Your task to perform on an android device: check google app version Image 0: 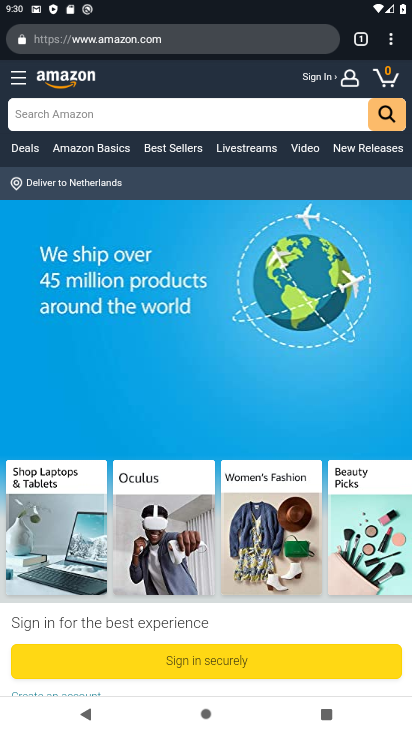
Step 0: press back button
Your task to perform on an android device: check google app version Image 1: 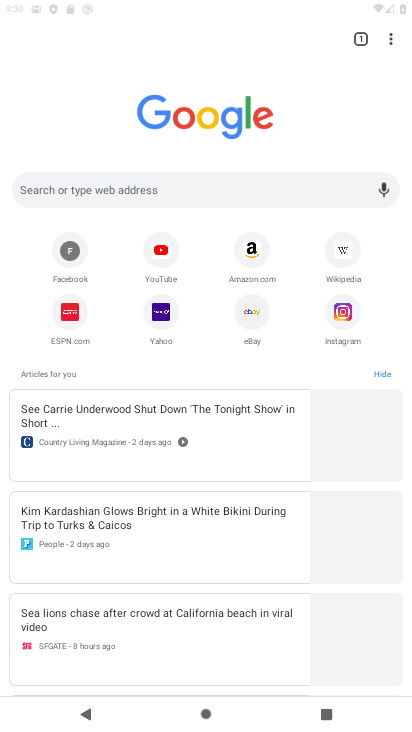
Step 1: press home button
Your task to perform on an android device: check google app version Image 2: 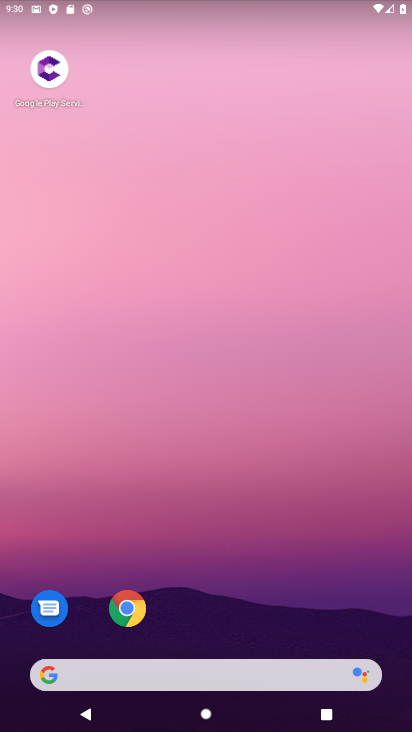
Step 2: press back button
Your task to perform on an android device: check google app version Image 3: 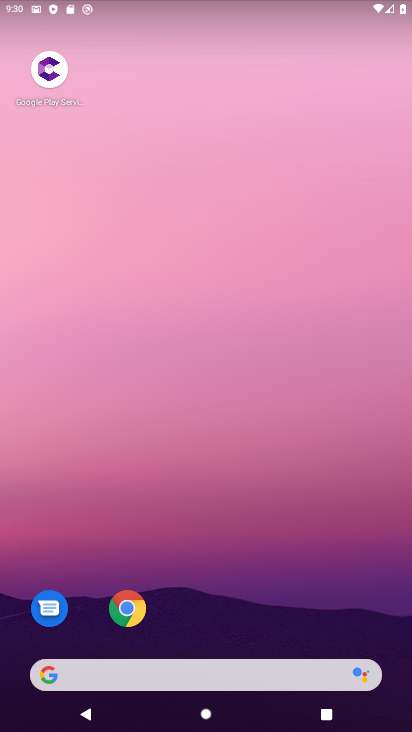
Step 3: drag from (321, 706) to (181, 279)
Your task to perform on an android device: check google app version Image 4: 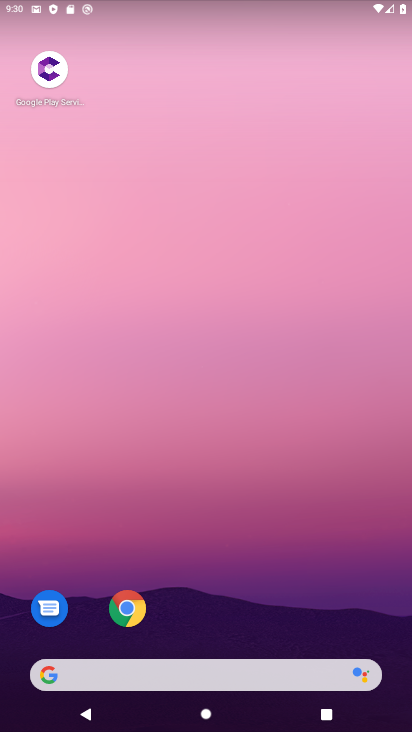
Step 4: drag from (263, 605) to (154, 32)
Your task to perform on an android device: check google app version Image 5: 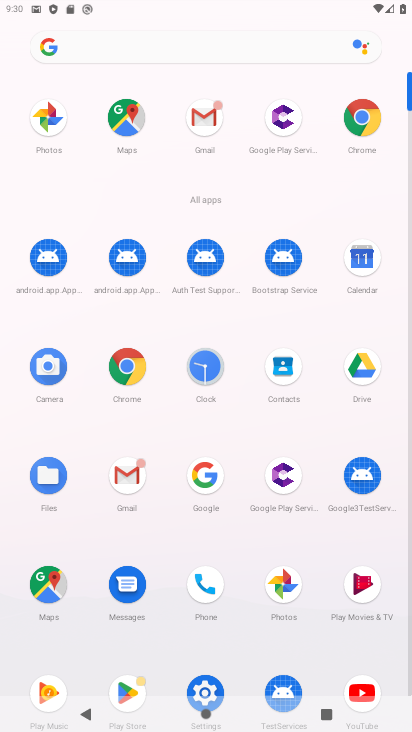
Step 5: click (198, 475)
Your task to perform on an android device: check google app version Image 6: 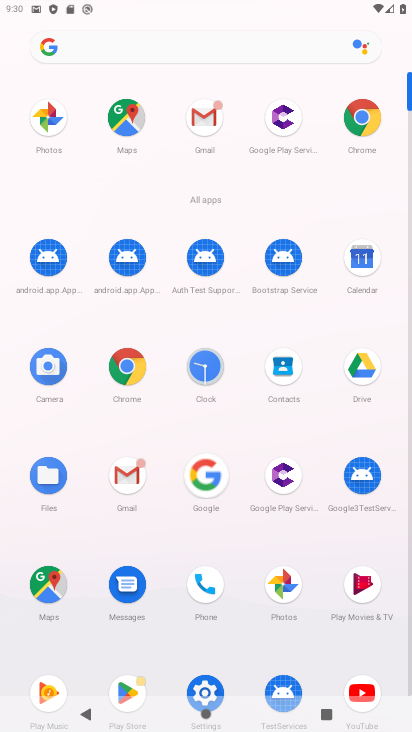
Step 6: click (200, 477)
Your task to perform on an android device: check google app version Image 7: 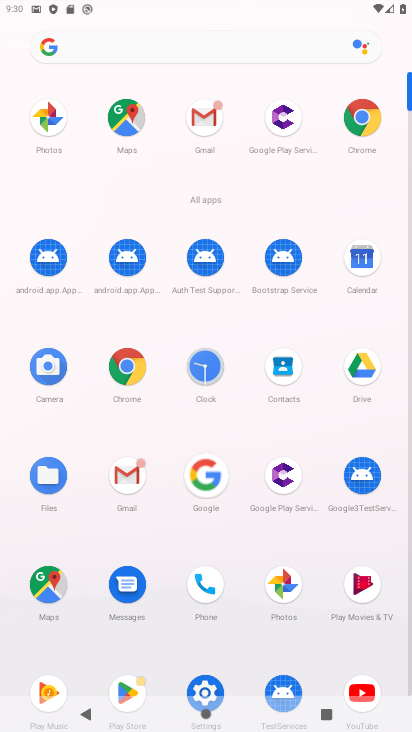
Step 7: click (202, 476)
Your task to perform on an android device: check google app version Image 8: 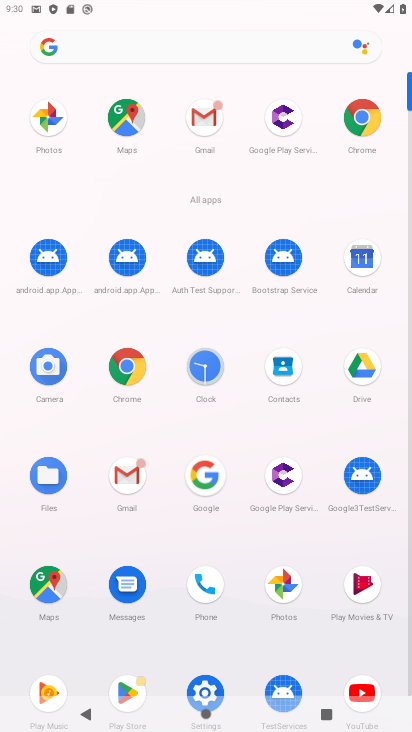
Step 8: click (202, 476)
Your task to perform on an android device: check google app version Image 9: 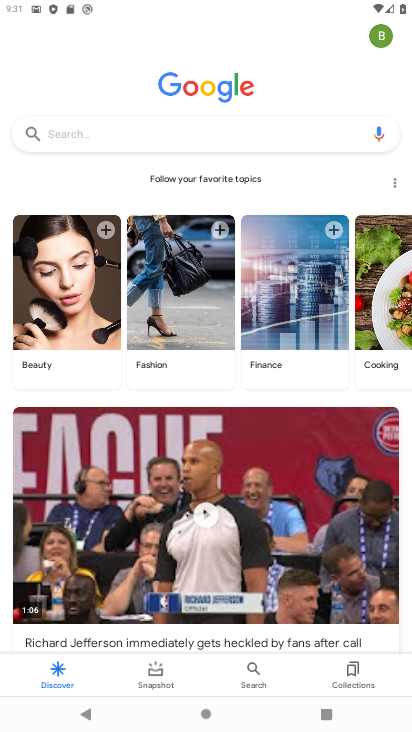
Step 9: click (393, 192)
Your task to perform on an android device: check google app version Image 10: 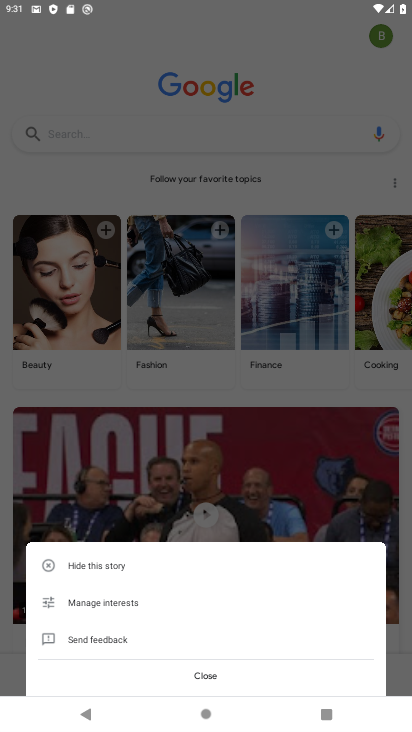
Step 10: click (174, 470)
Your task to perform on an android device: check google app version Image 11: 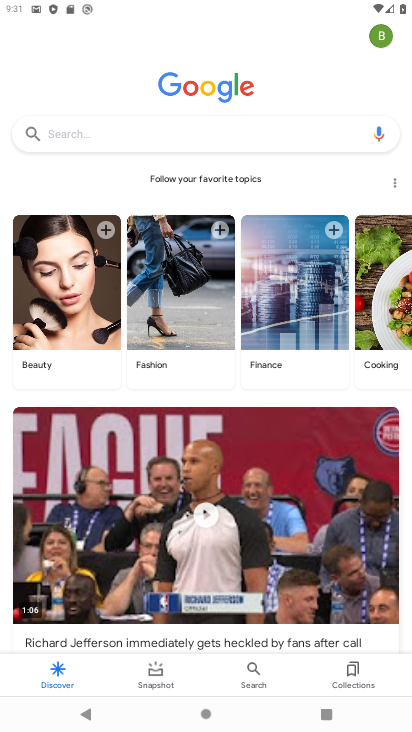
Step 11: click (355, 677)
Your task to perform on an android device: check google app version Image 12: 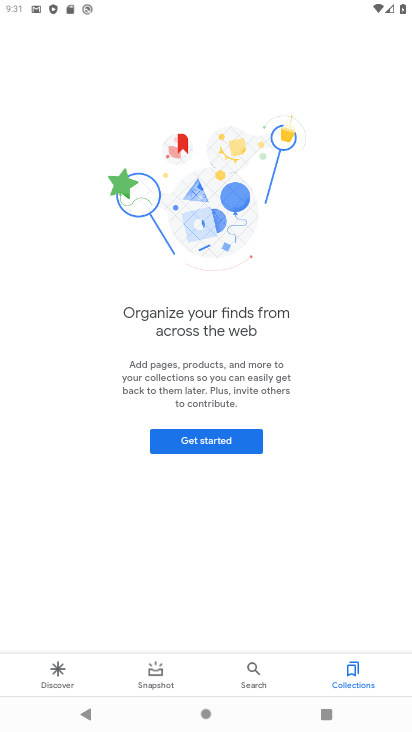
Step 12: press back button
Your task to perform on an android device: check google app version Image 13: 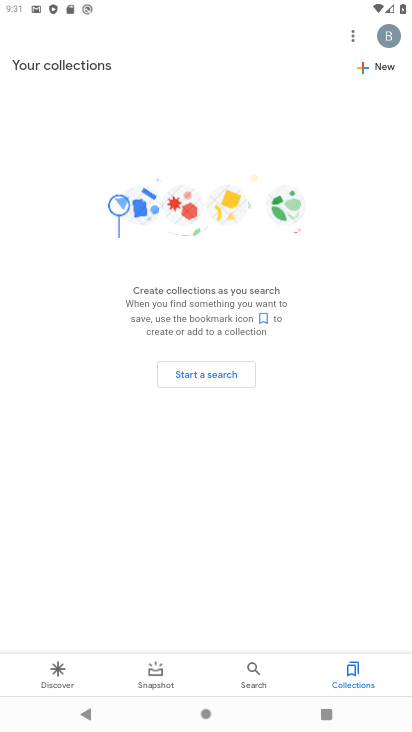
Step 13: press home button
Your task to perform on an android device: check google app version Image 14: 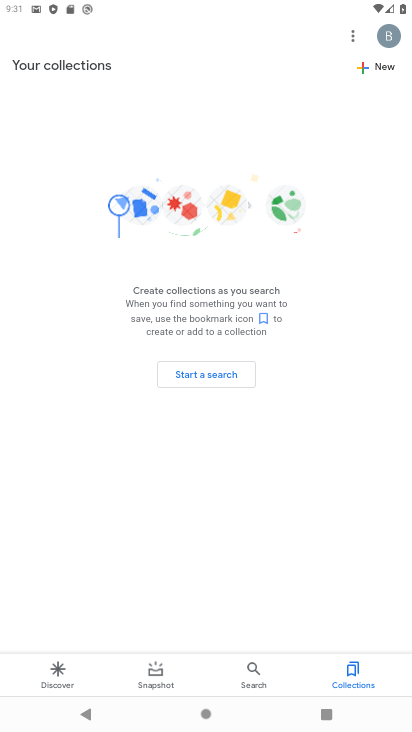
Step 14: press home button
Your task to perform on an android device: check google app version Image 15: 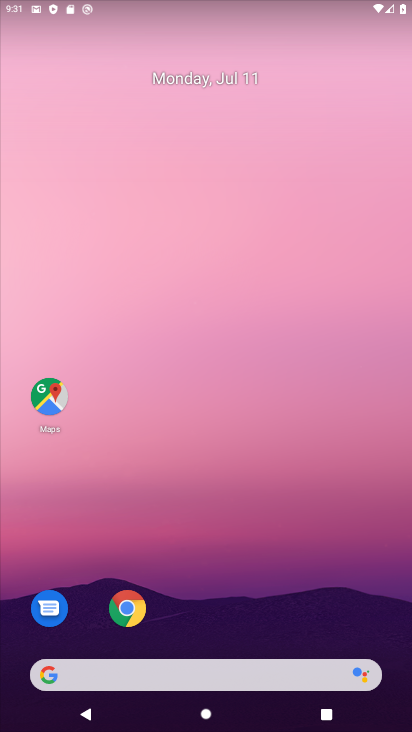
Step 15: drag from (259, 651) to (158, 162)
Your task to perform on an android device: check google app version Image 16: 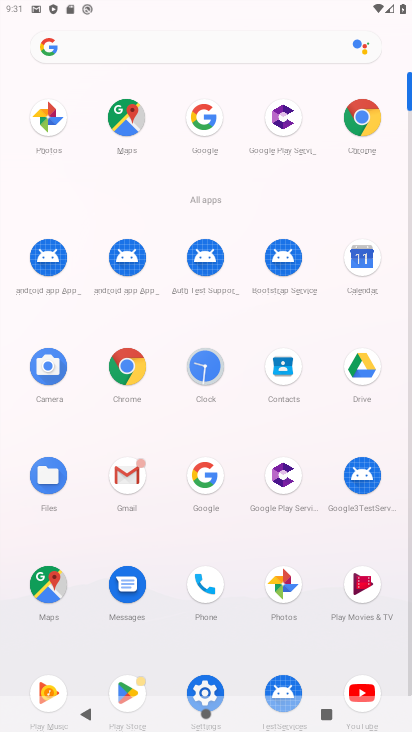
Step 16: click (207, 473)
Your task to perform on an android device: check google app version Image 17: 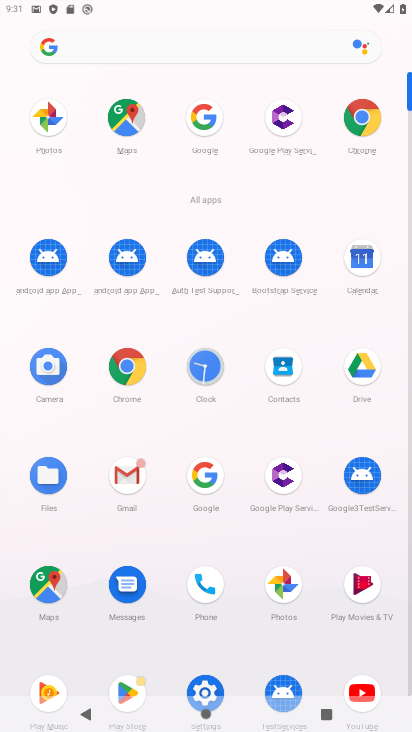
Step 17: click (208, 474)
Your task to perform on an android device: check google app version Image 18: 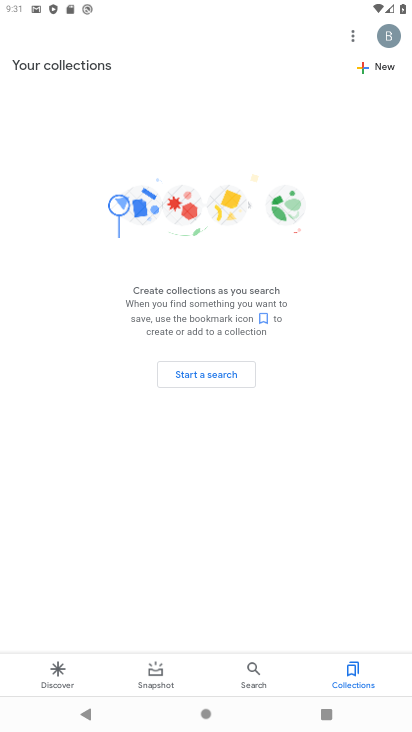
Step 18: click (247, 675)
Your task to perform on an android device: check google app version Image 19: 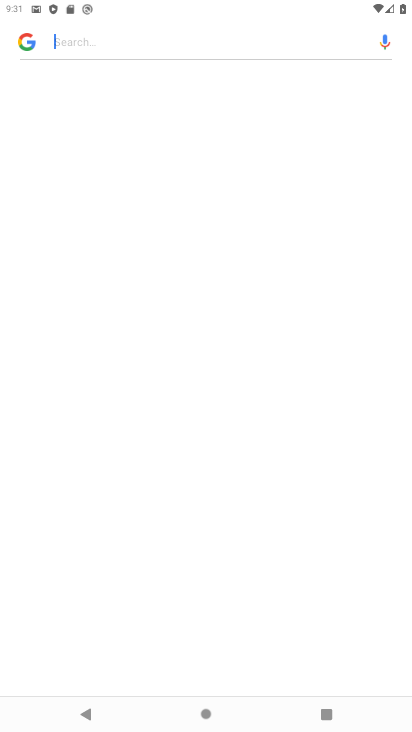
Step 19: click (250, 671)
Your task to perform on an android device: check google app version Image 20: 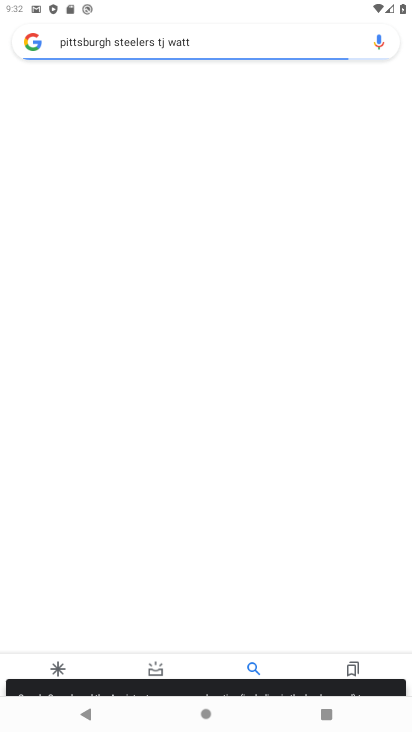
Step 20: task complete